Your task to perform on an android device: change the upload size in google photos Image 0: 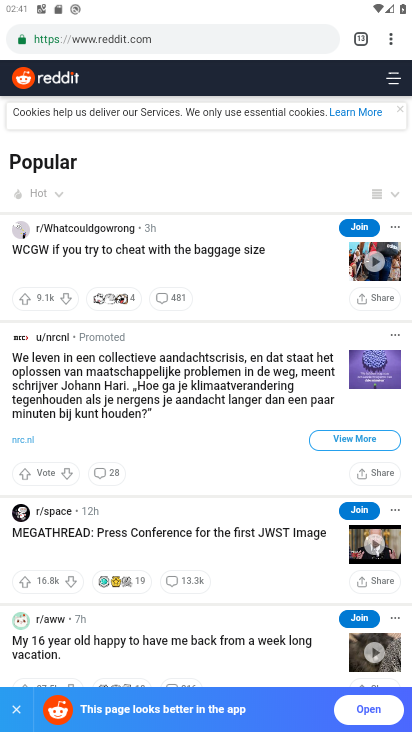
Step 0: press home button
Your task to perform on an android device: change the upload size in google photos Image 1: 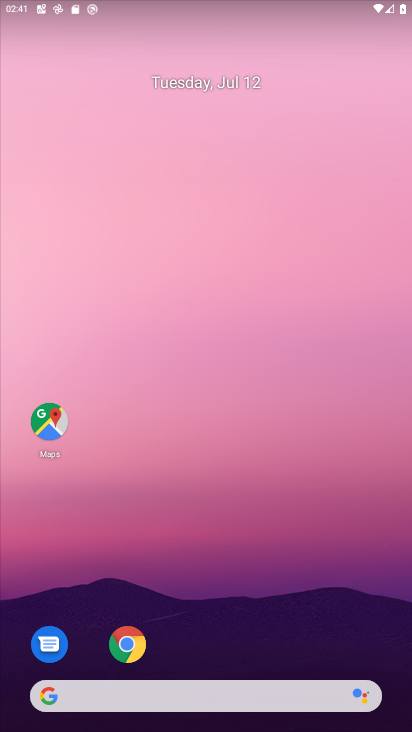
Step 1: drag from (226, 680) to (209, 147)
Your task to perform on an android device: change the upload size in google photos Image 2: 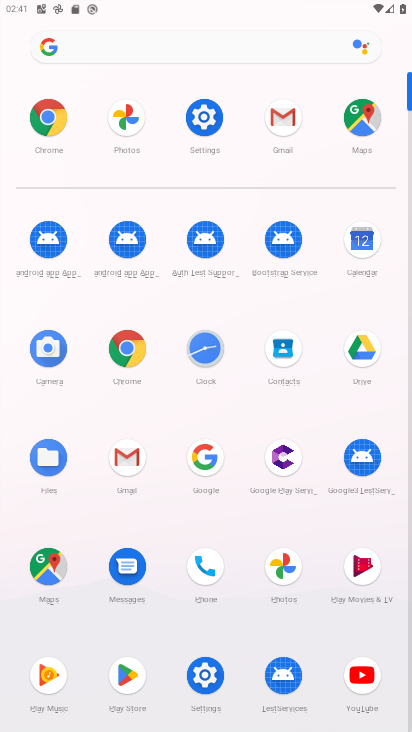
Step 2: click (281, 568)
Your task to perform on an android device: change the upload size in google photos Image 3: 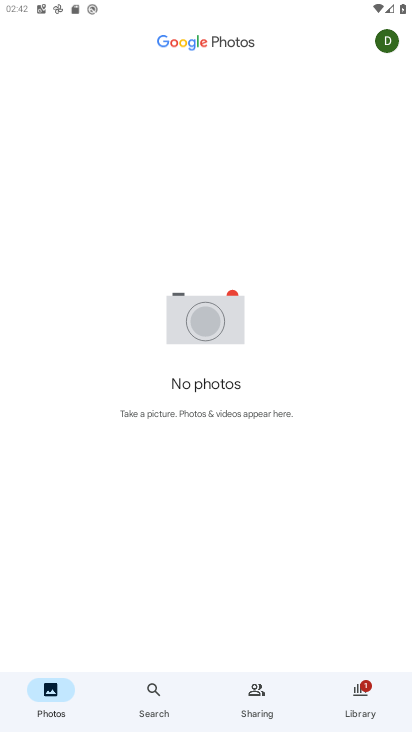
Step 3: click (386, 13)
Your task to perform on an android device: change the upload size in google photos Image 4: 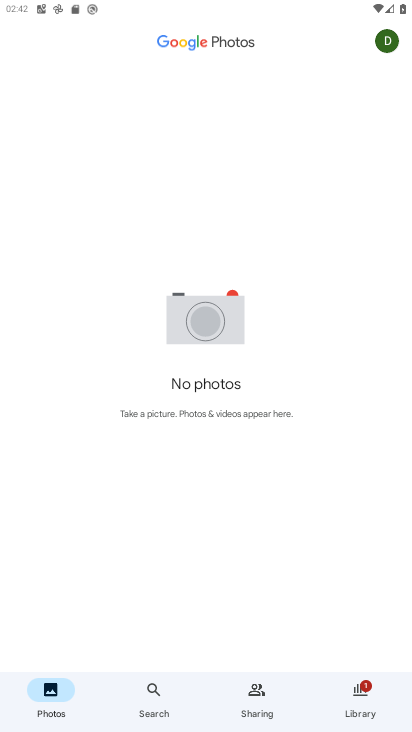
Step 4: click (396, 32)
Your task to perform on an android device: change the upload size in google photos Image 5: 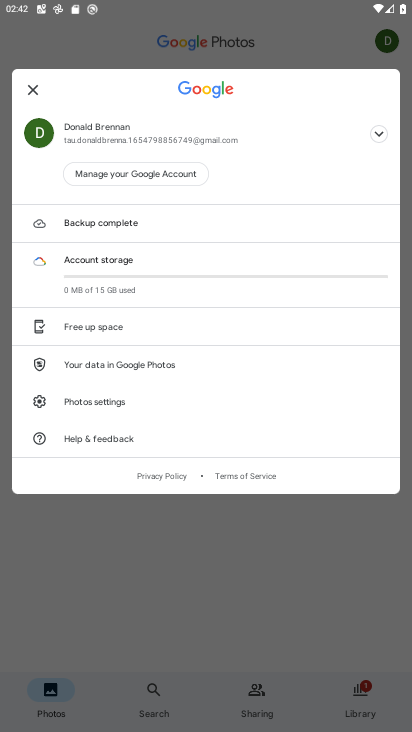
Step 5: click (105, 406)
Your task to perform on an android device: change the upload size in google photos Image 6: 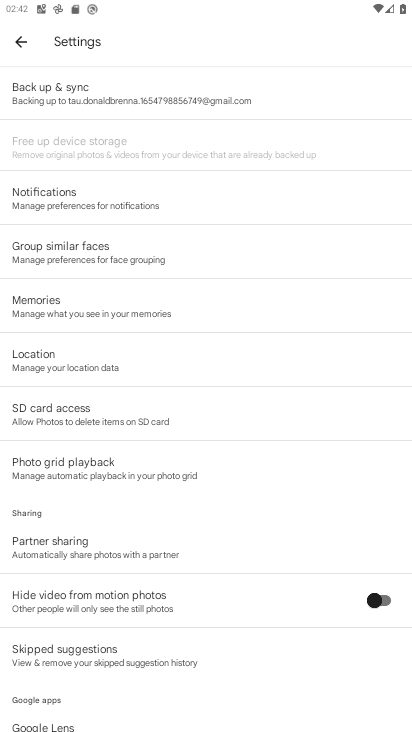
Step 6: click (105, 104)
Your task to perform on an android device: change the upload size in google photos Image 7: 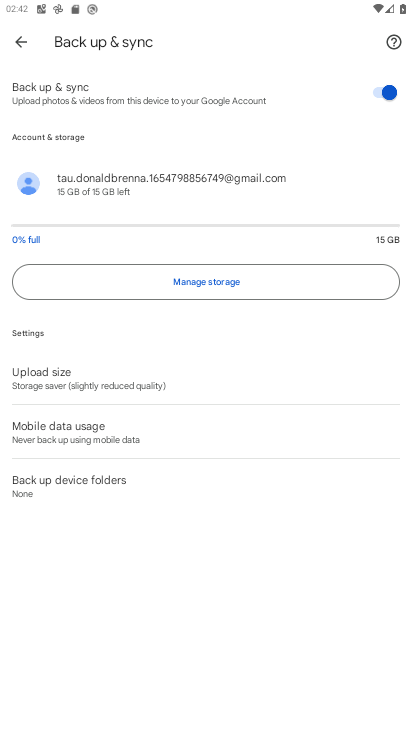
Step 7: click (97, 374)
Your task to perform on an android device: change the upload size in google photos Image 8: 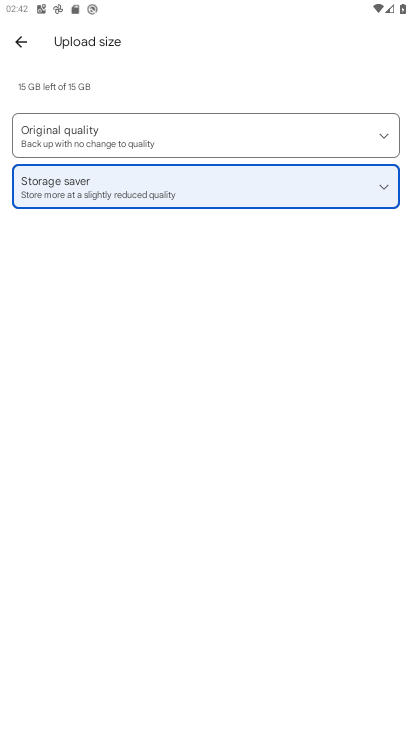
Step 8: click (101, 147)
Your task to perform on an android device: change the upload size in google photos Image 9: 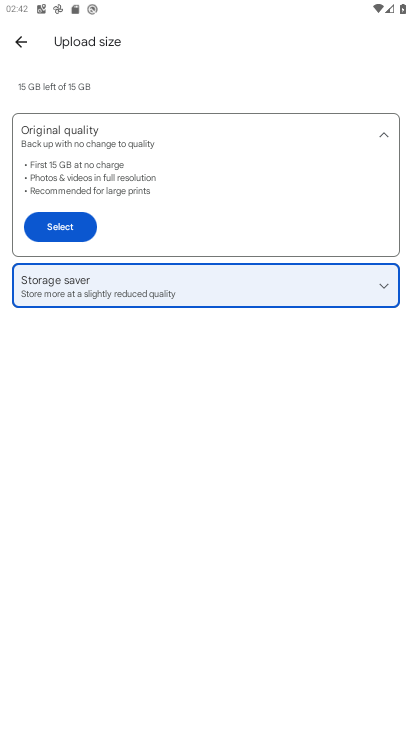
Step 9: click (68, 219)
Your task to perform on an android device: change the upload size in google photos Image 10: 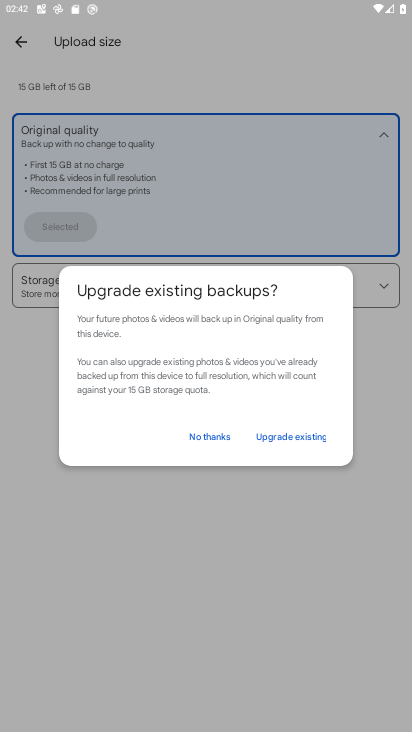
Step 10: click (305, 433)
Your task to perform on an android device: change the upload size in google photos Image 11: 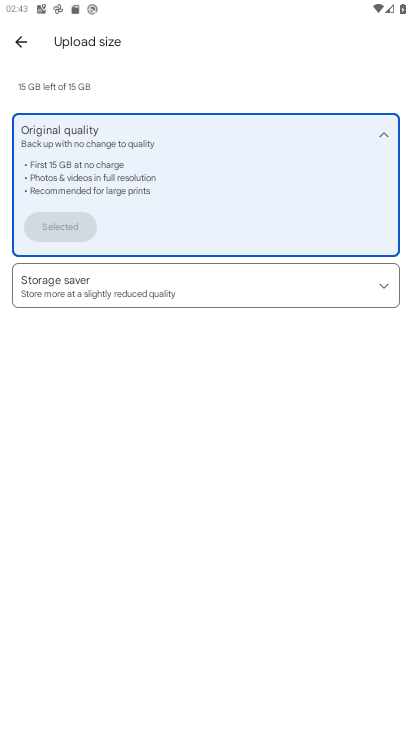
Step 11: task complete